Your task to perform on an android device: turn on the 12-hour format for clock Image 0: 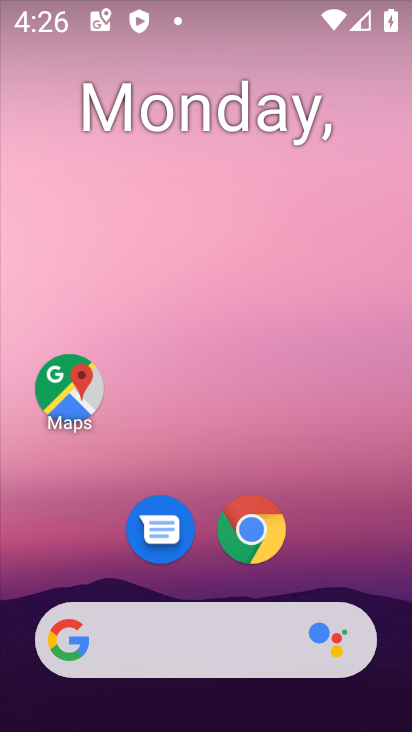
Step 0: drag from (223, 707) to (228, 183)
Your task to perform on an android device: turn on the 12-hour format for clock Image 1: 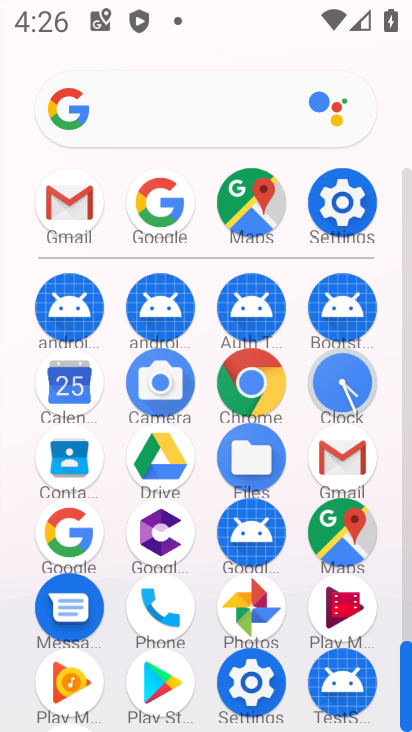
Step 1: click (340, 377)
Your task to perform on an android device: turn on the 12-hour format for clock Image 2: 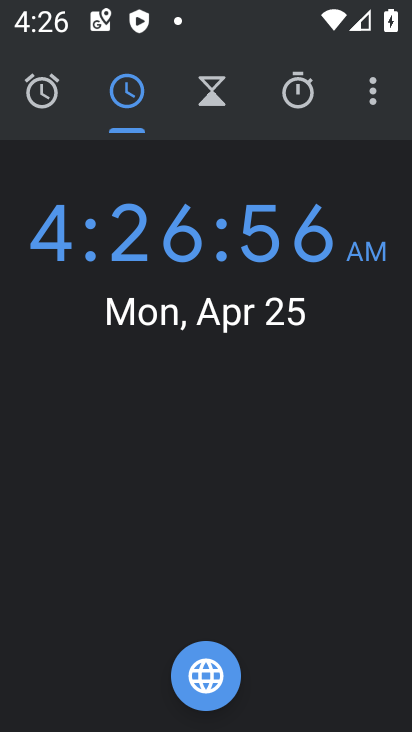
Step 2: click (373, 82)
Your task to perform on an android device: turn on the 12-hour format for clock Image 3: 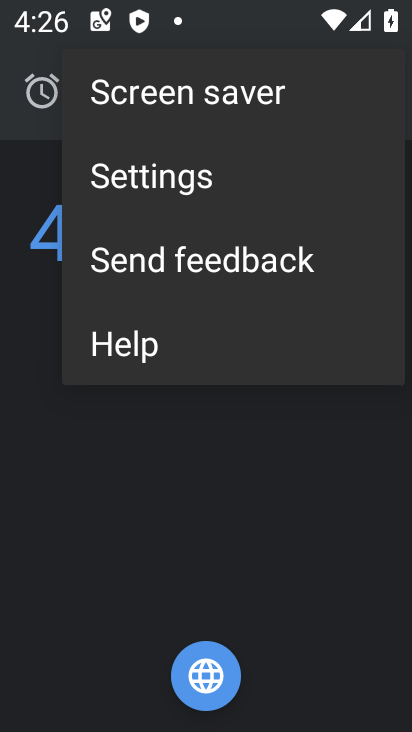
Step 3: click (153, 181)
Your task to perform on an android device: turn on the 12-hour format for clock Image 4: 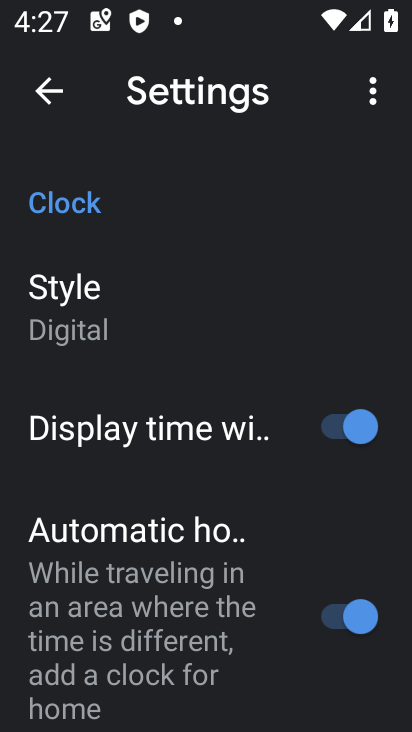
Step 4: drag from (131, 670) to (145, 254)
Your task to perform on an android device: turn on the 12-hour format for clock Image 5: 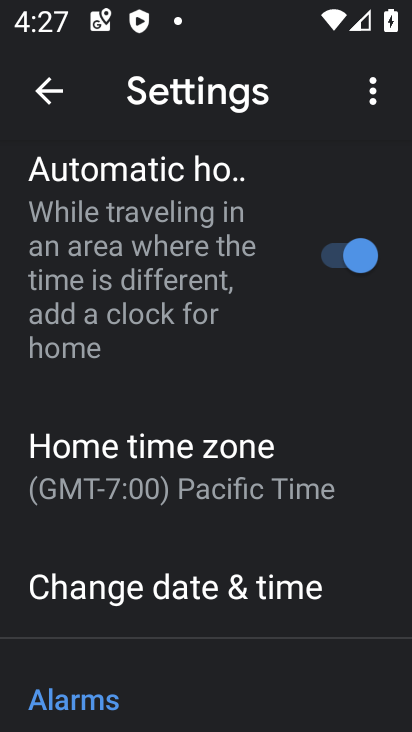
Step 5: click (152, 590)
Your task to perform on an android device: turn on the 12-hour format for clock Image 6: 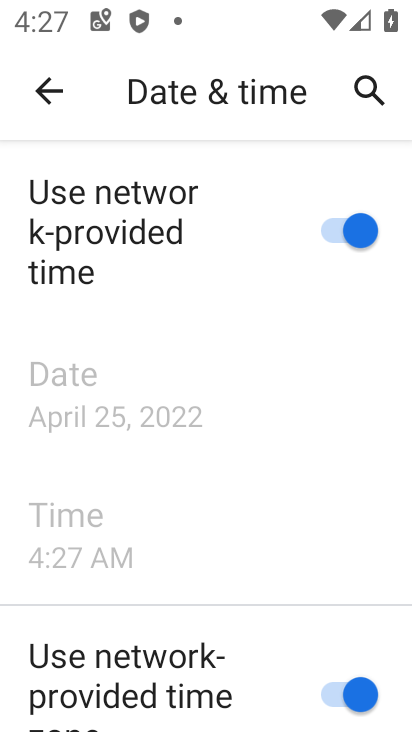
Step 6: task complete